Your task to perform on an android device: turn on sleep mode Image 0: 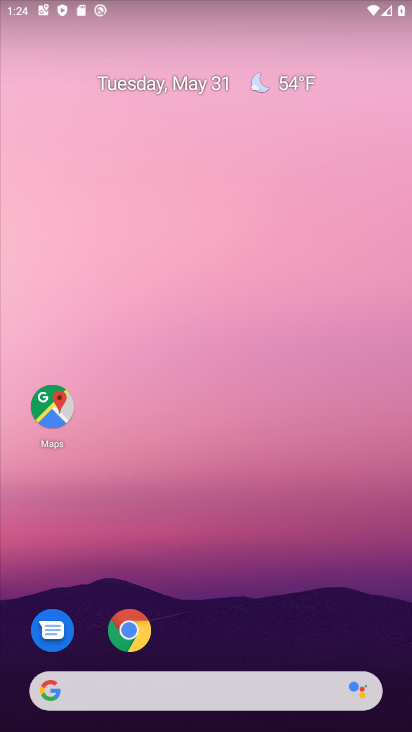
Step 0: press home button
Your task to perform on an android device: turn on sleep mode Image 1: 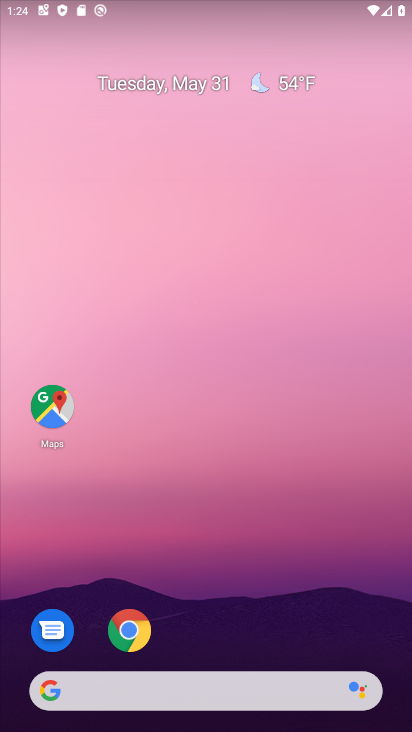
Step 1: drag from (188, 638) to (272, 13)
Your task to perform on an android device: turn on sleep mode Image 2: 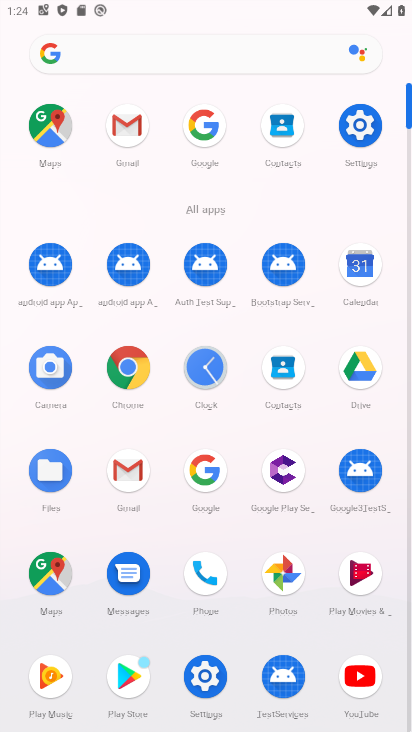
Step 2: click (201, 676)
Your task to perform on an android device: turn on sleep mode Image 3: 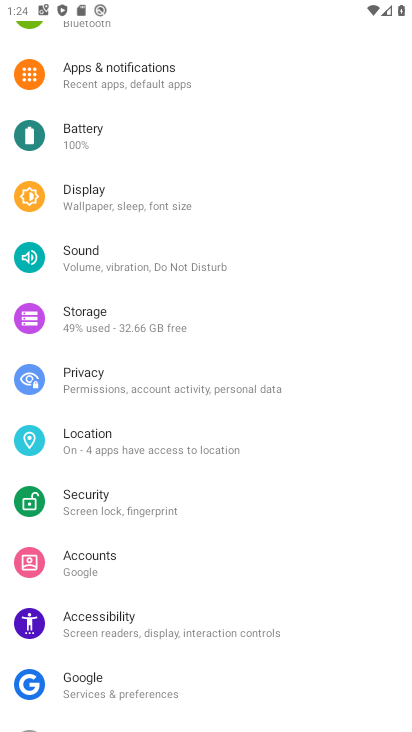
Step 3: click (143, 189)
Your task to perform on an android device: turn on sleep mode Image 4: 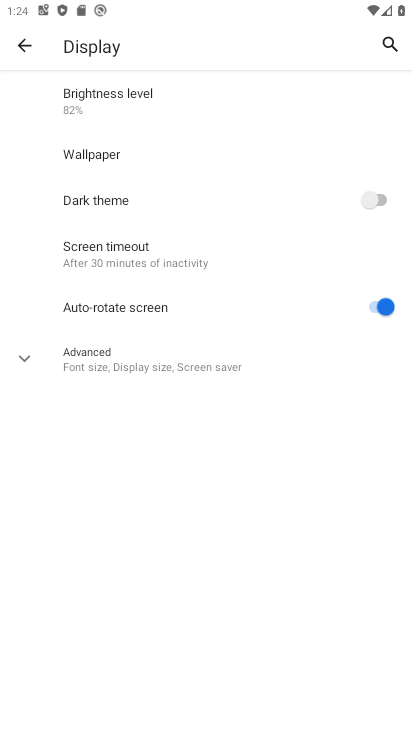
Step 4: click (124, 263)
Your task to perform on an android device: turn on sleep mode Image 5: 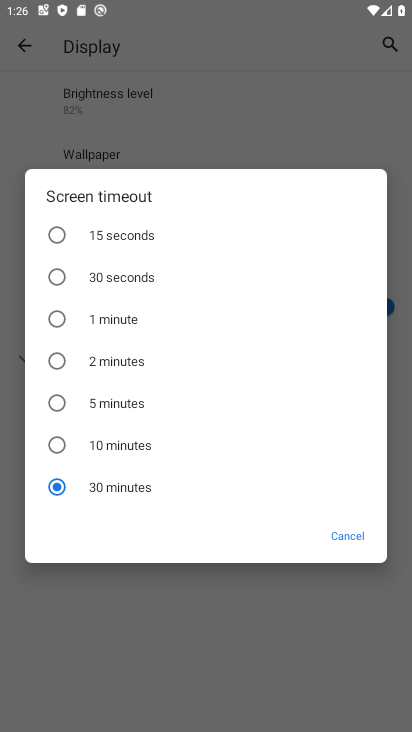
Step 5: task complete